Your task to perform on an android device: Search for Mexican restaurants on Maps Image 0: 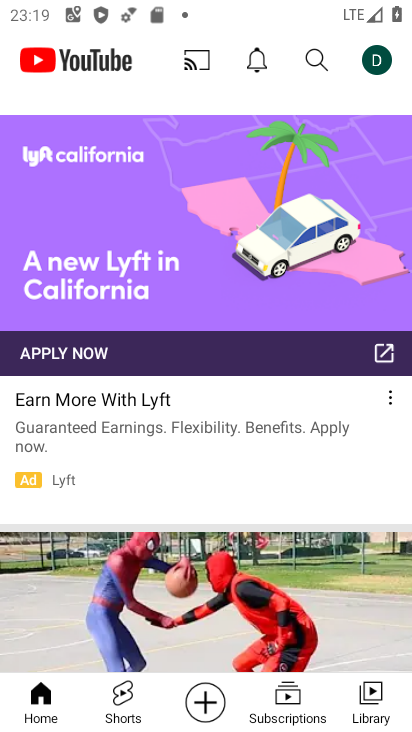
Step 0: press home button
Your task to perform on an android device: Search for Mexican restaurants on Maps Image 1: 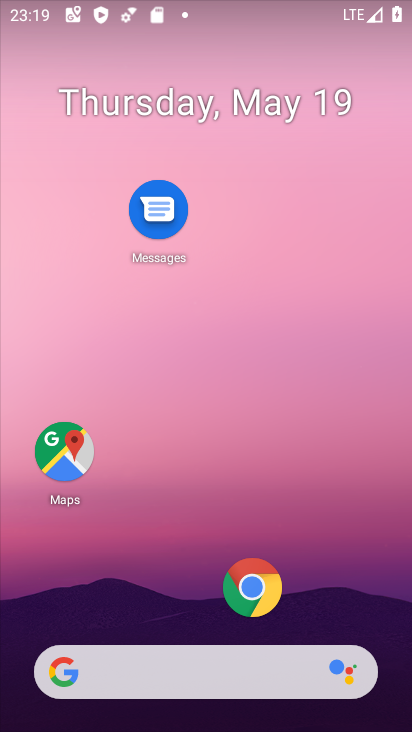
Step 1: click (67, 459)
Your task to perform on an android device: Search for Mexican restaurants on Maps Image 2: 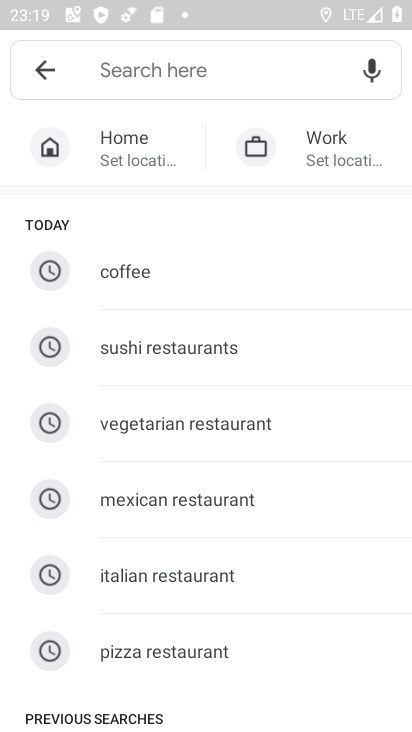
Step 2: click (159, 515)
Your task to perform on an android device: Search for Mexican restaurants on Maps Image 3: 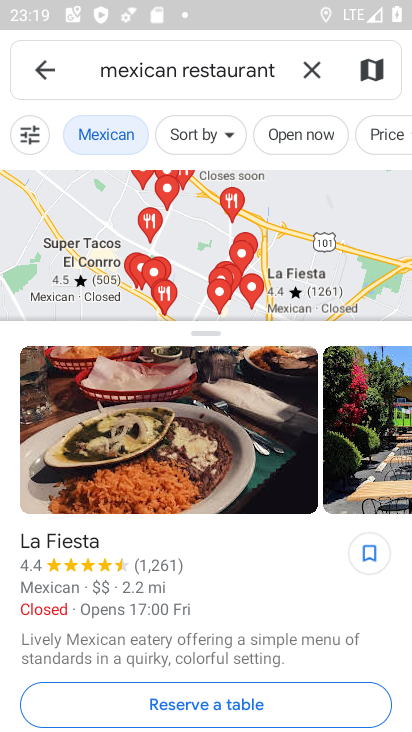
Step 3: task complete